Your task to perform on an android device: Turn off the flashlight Image 0: 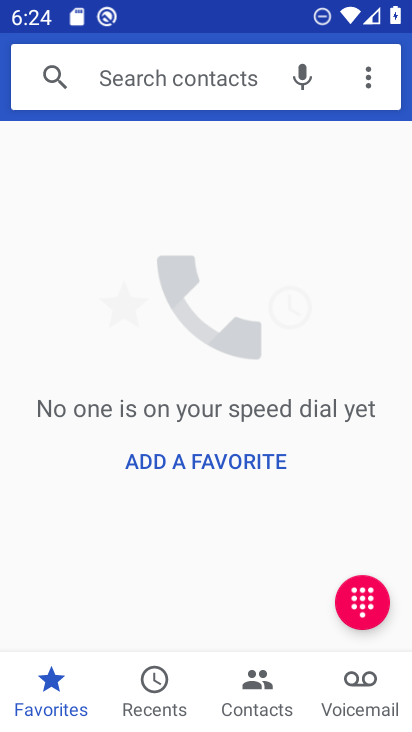
Step 0: press home button
Your task to perform on an android device: Turn off the flashlight Image 1: 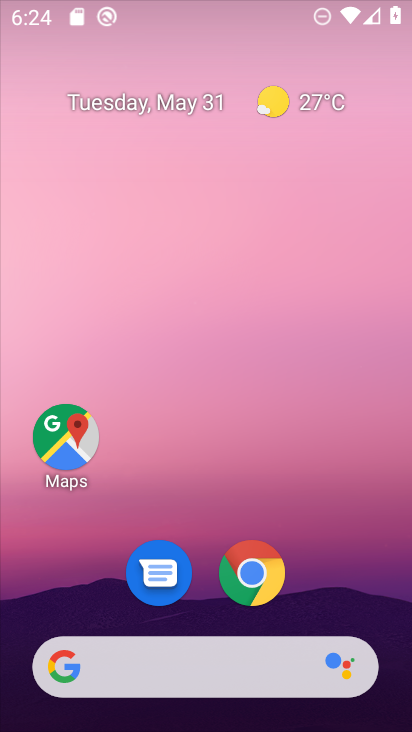
Step 1: drag from (385, 605) to (375, 8)
Your task to perform on an android device: Turn off the flashlight Image 2: 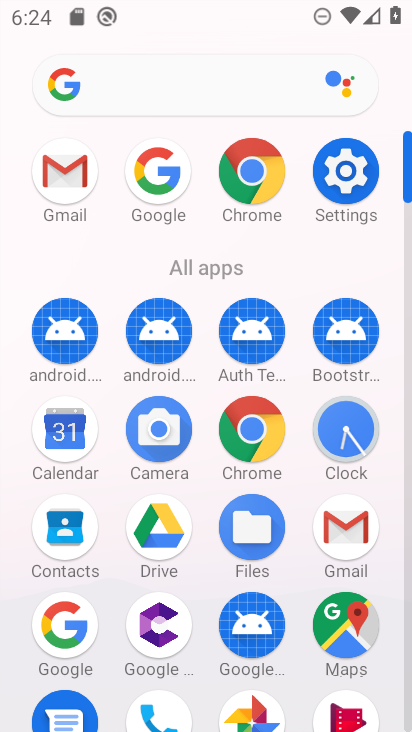
Step 2: click (391, 187)
Your task to perform on an android device: Turn off the flashlight Image 3: 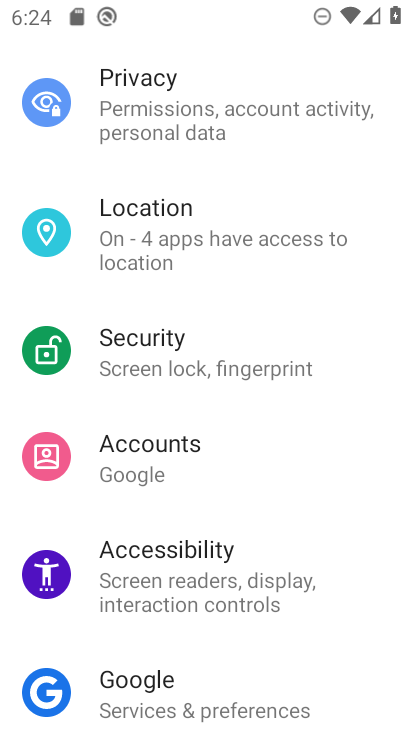
Step 3: task complete